Your task to perform on an android device: Search for vegetarian restaurants on Maps Image 0: 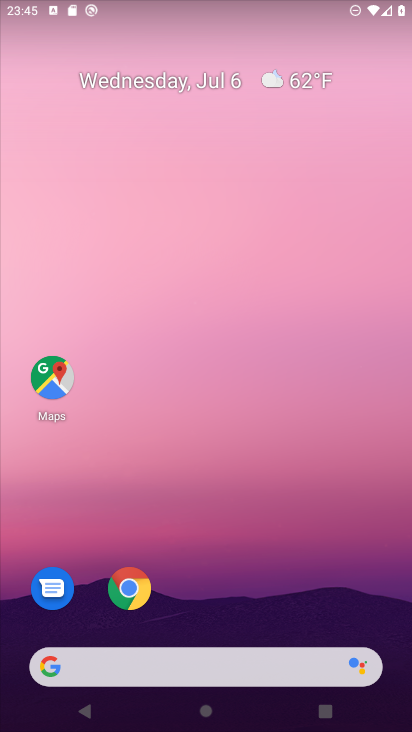
Step 0: click (52, 381)
Your task to perform on an android device: Search for vegetarian restaurants on Maps Image 1: 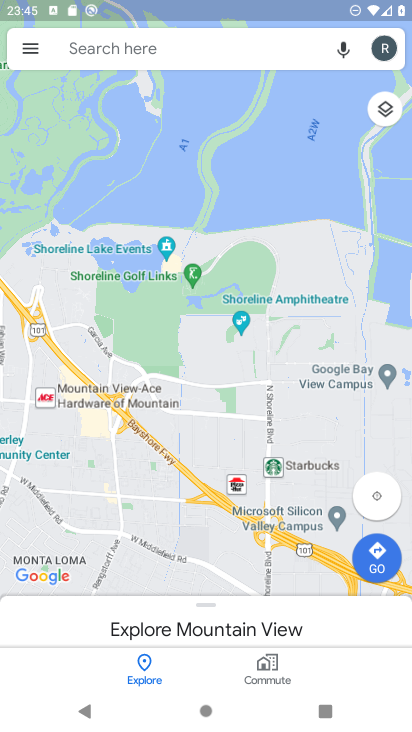
Step 1: click (101, 45)
Your task to perform on an android device: Search for vegetarian restaurants on Maps Image 2: 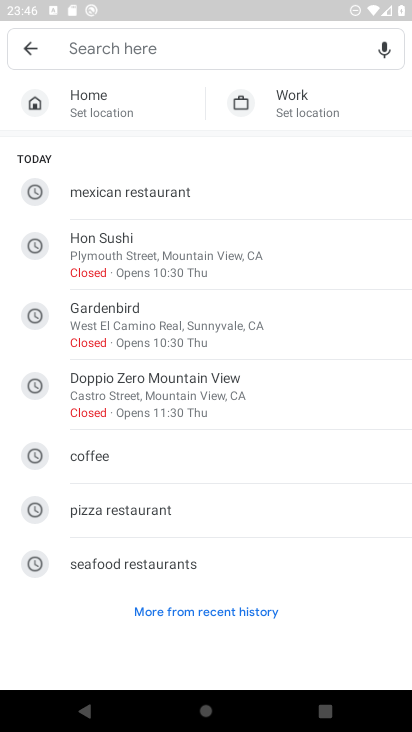
Step 2: type "vegetarian restaurants"
Your task to perform on an android device: Search for vegetarian restaurants on Maps Image 3: 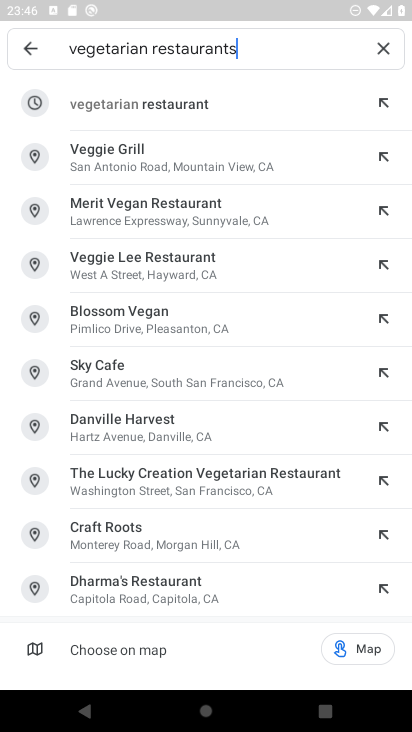
Step 3: click (124, 100)
Your task to perform on an android device: Search for vegetarian restaurants on Maps Image 4: 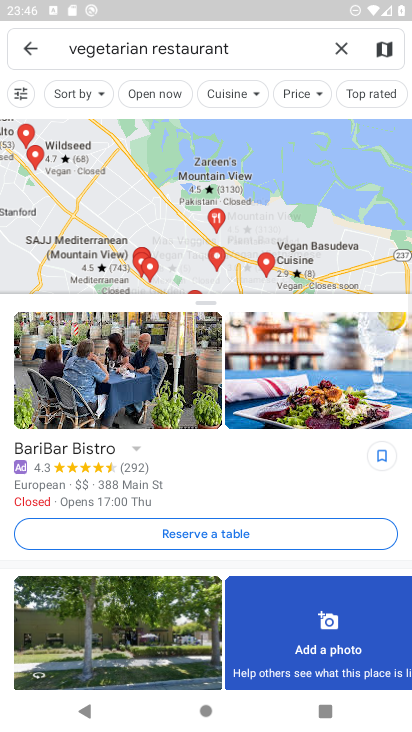
Step 4: task complete